Your task to perform on an android device: change the clock display to analog Image 0: 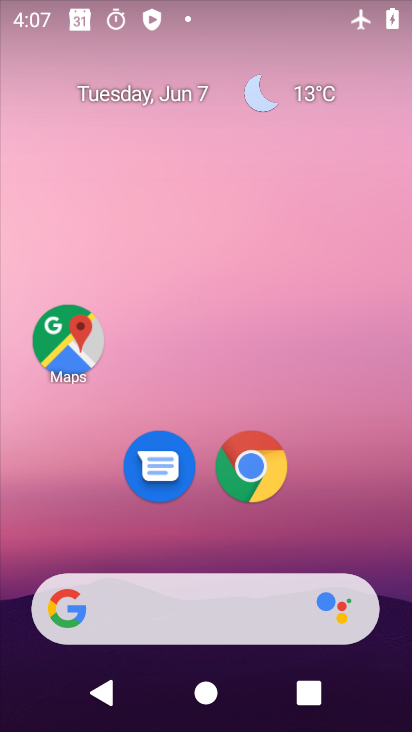
Step 0: drag from (393, 592) to (274, 131)
Your task to perform on an android device: change the clock display to analog Image 1: 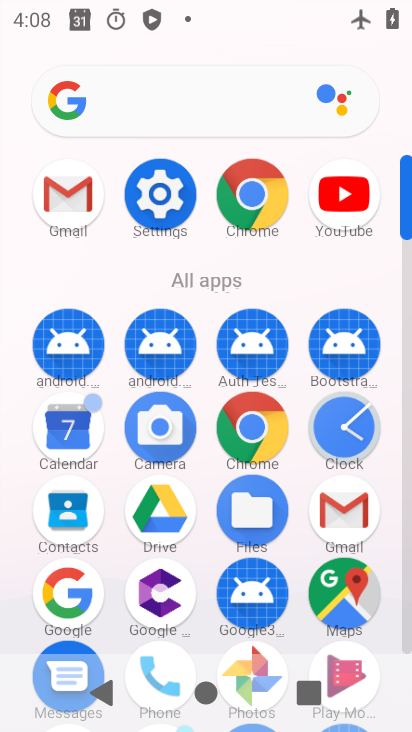
Step 1: click (336, 426)
Your task to perform on an android device: change the clock display to analog Image 2: 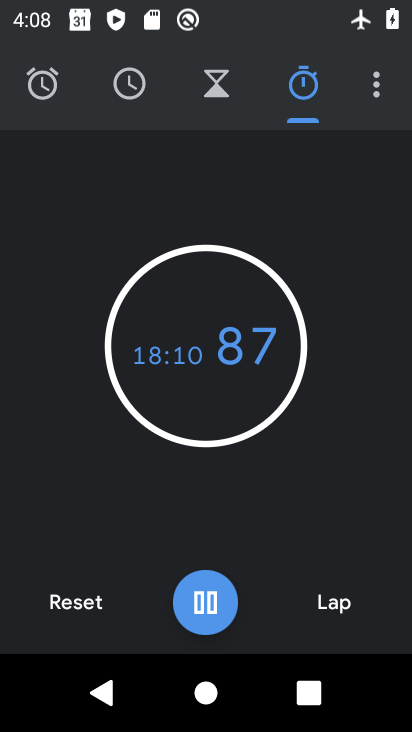
Step 2: click (375, 78)
Your task to perform on an android device: change the clock display to analog Image 3: 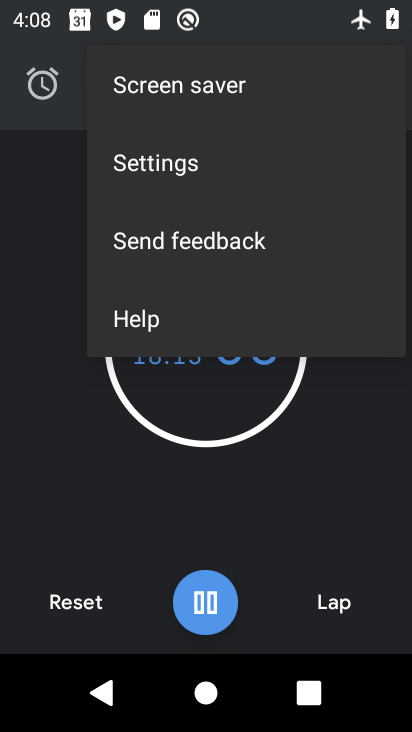
Step 3: click (284, 177)
Your task to perform on an android device: change the clock display to analog Image 4: 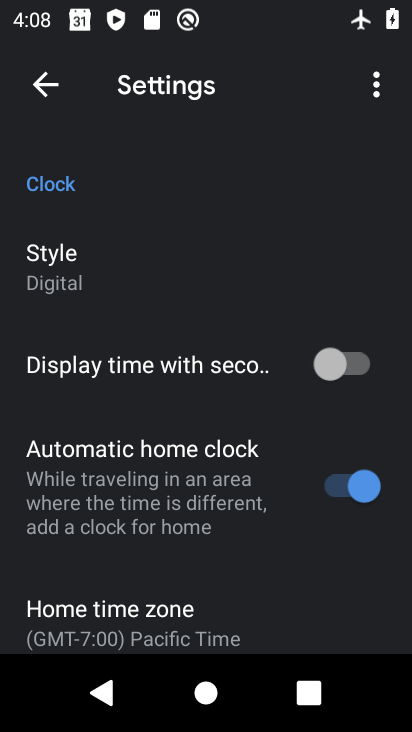
Step 4: click (204, 275)
Your task to perform on an android device: change the clock display to analog Image 5: 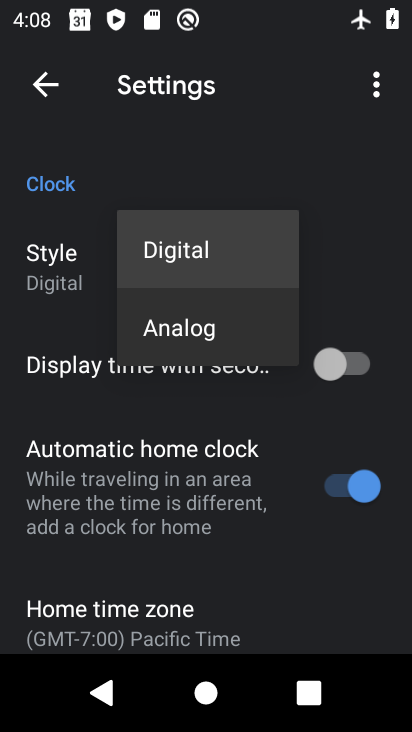
Step 5: click (220, 328)
Your task to perform on an android device: change the clock display to analog Image 6: 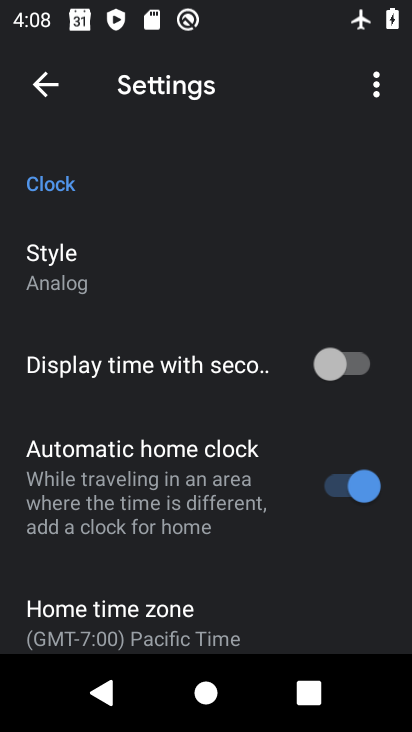
Step 6: task complete